Your task to perform on an android device: Clear the shopping cart on target.com. Search for jbl flip 4 on target.com, select the first entry, and add it to the cart. Image 0: 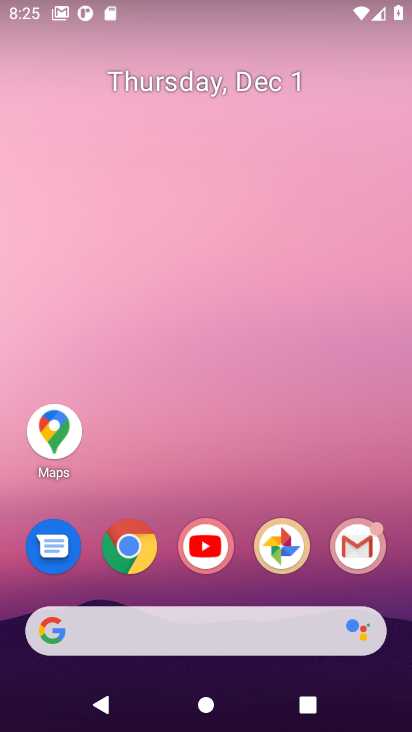
Step 0: click (129, 551)
Your task to perform on an android device: Clear the shopping cart on target.com. Search for jbl flip 4 on target.com, select the first entry, and add it to the cart. Image 1: 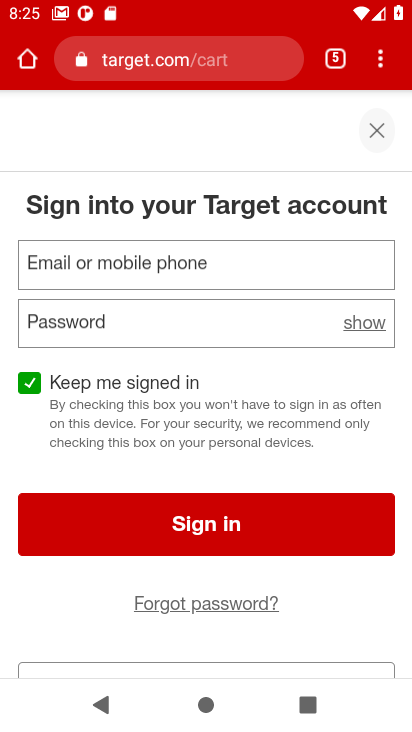
Step 1: press back button
Your task to perform on an android device: Clear the shopping cart on target.com. Search for jbl flip 4 on target.com, select the first entry, and add it to the cart. Image 2: 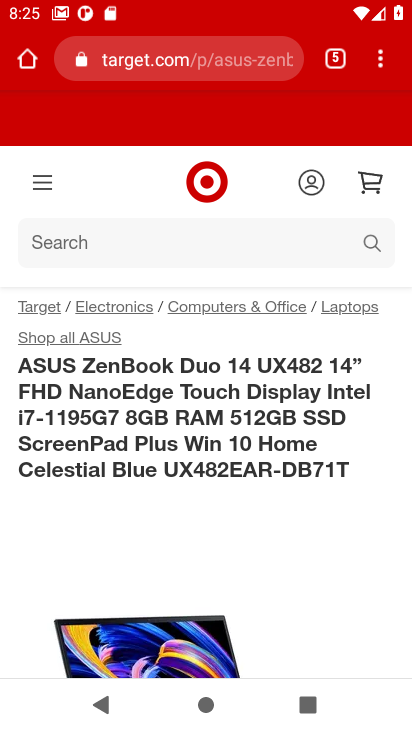
Step 2: click (373, 182)
Your task to perform on an android device: Clear the shopping cart on target.com. Search for jbl flip 4 on target.com, select the first entry, and add it to the cart. Image 3: 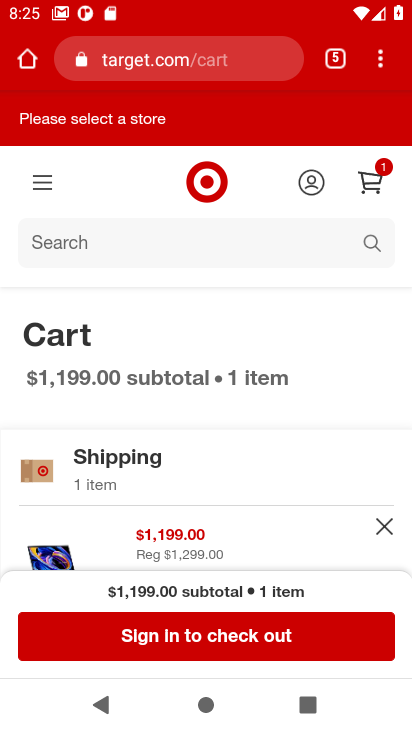
Step 3: drag from (218, 446) to (210, 272)
Your task to perform on an android device: Clear the shopping cart on target.com. Search for jbl flip 4 on target.com, select the first entry, and add it to the cart. Image 4: 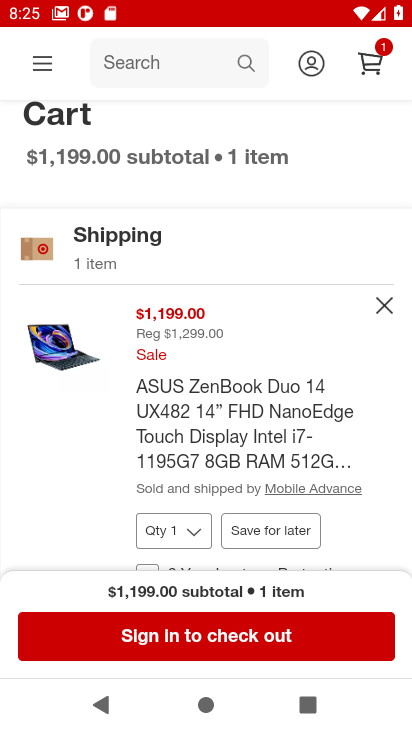
Step 4: click (384, 304)
Your task to perform on an android device: Clear the shopping cart on target.com. Search for jbl flip 4 on target.com, select the first entry, and add it to the cart. Image 5: 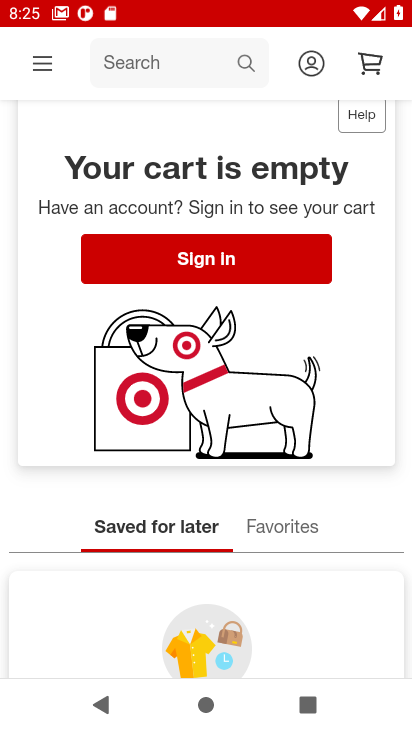
Step 5: drag from (208, 144) to (190, 284)
Your task to perform on an android device: Clear the shopping cart on target.com. Search for jbl flip 4 on target.com, select the first entry, and add it to the cart. Image 6: 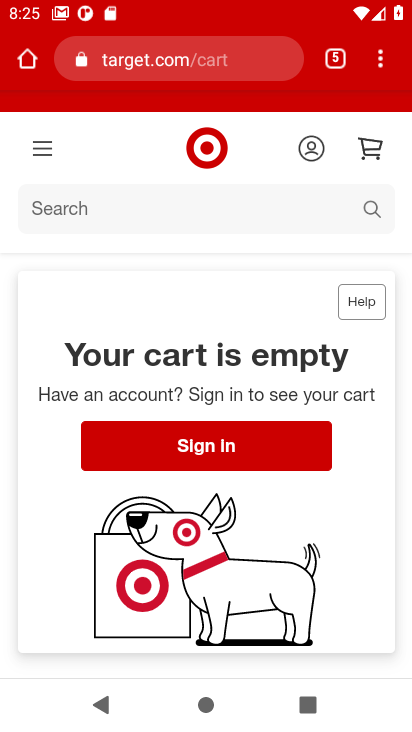
Step 6: click (86, 207)
Your task to perform on an android device: Clear the shopping cart on target.com. Search for jbl flip 4 on target.com, select the first entry, and add it to the cart. Image 7: 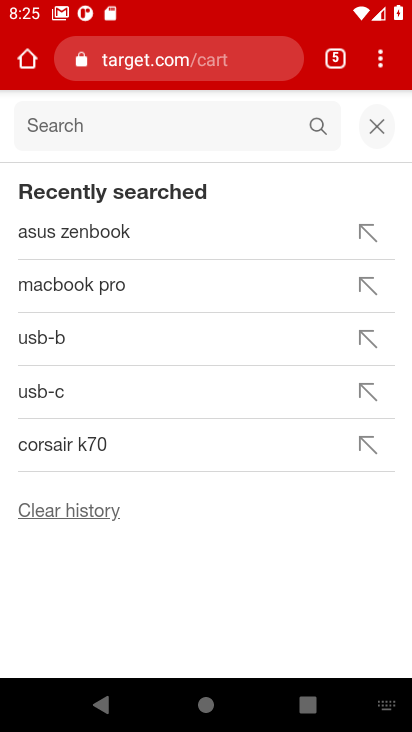
Step 7: type " jbl flip 4"
Your task to perform on an android device: Clear the shopping cart on target.com. Search for jbl flip 4 on target.com, select the first entry, and add it to the cart. Image 8: 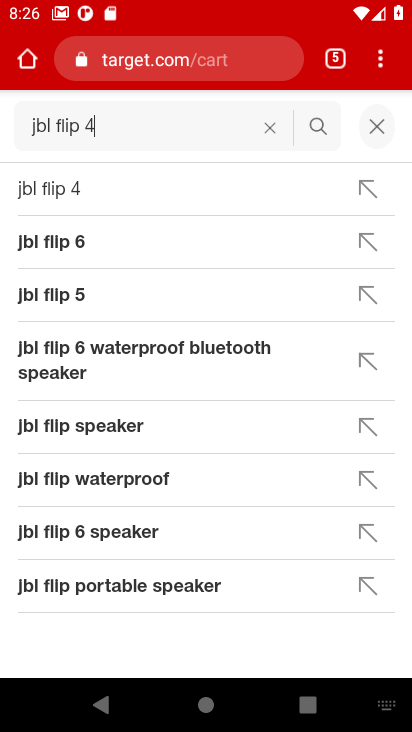
Step 8: click (49, 190)
Your task to perform on an android device: Clear the shopping cart on target.com. Search for jbl flip 4 on target.com, select the first entry, and add it to the cart. Image 9: 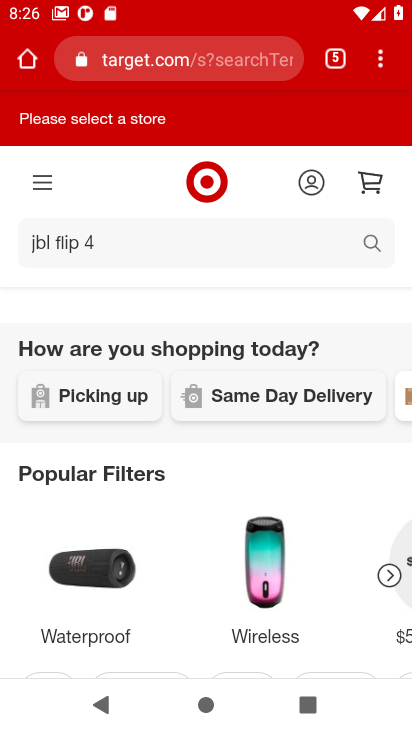
Step 9: task complete